Your task to perform on an android device: see sites visited before in the chrome app Image 0: 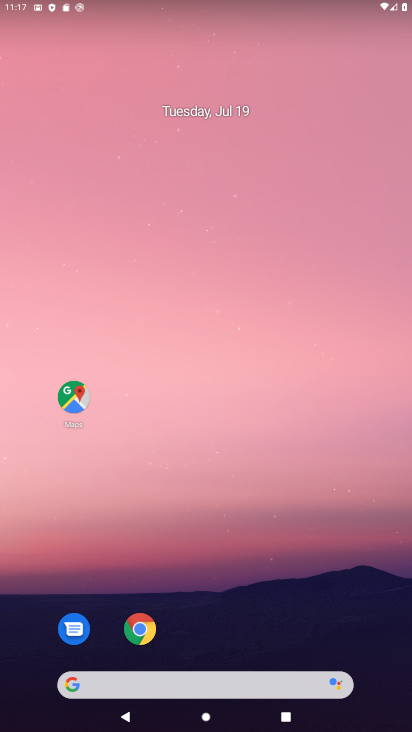
Step 0: drag from (239, 654) to (139, 29)
Your task to perform on an android device: see sites visited before in the chrome app Image 1: 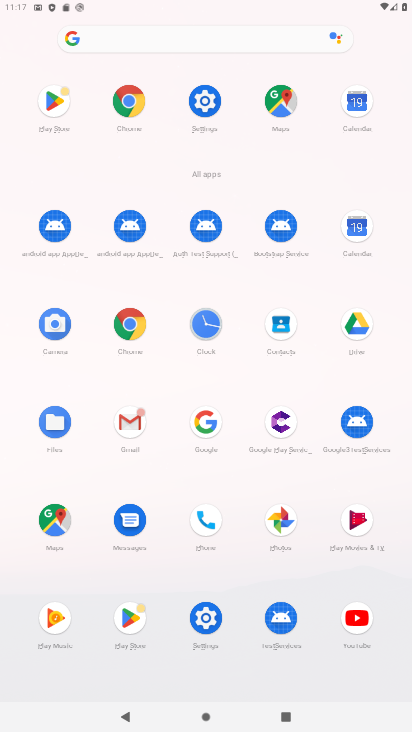
Step 1: click (143, 101)
Your task to perform on an android device: see sites visited before in the chrome app Image 2: 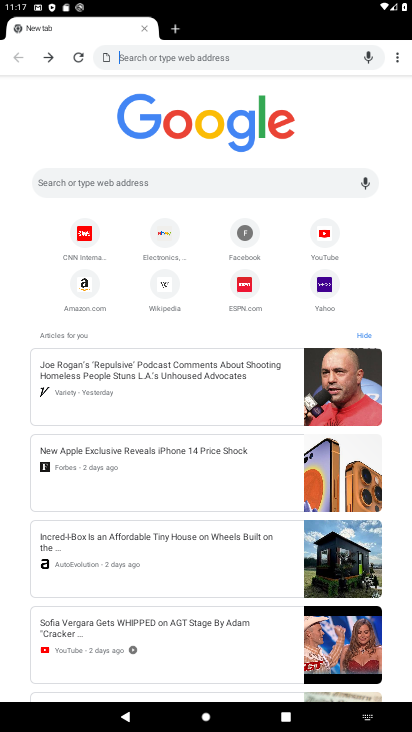
Step 2: drag from (398, 56) to (282, 143)
Your task to perform on an android device: see sites visited before in the chrome app Image 3: 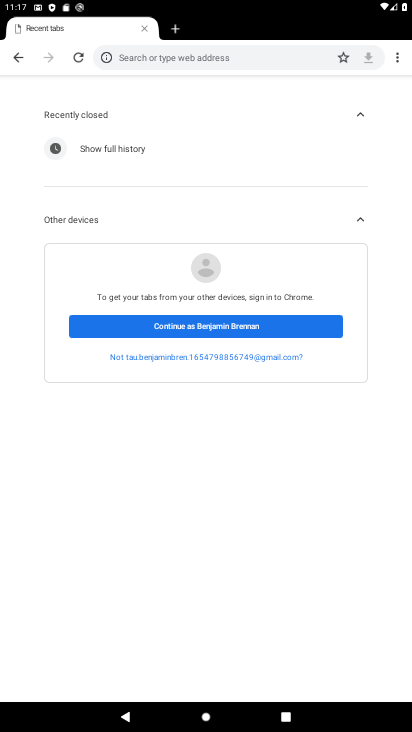
Step 3: click (155, 324)
Your task to perform on an android device: see sites visited before in the chrome app Image 4: 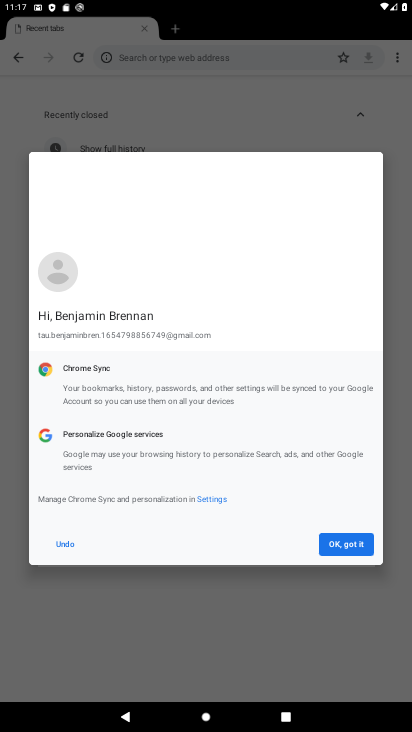
Step 4: click (364, 547)
Your task to perform on an android device: see sites visited before in the chrome app Image 5: 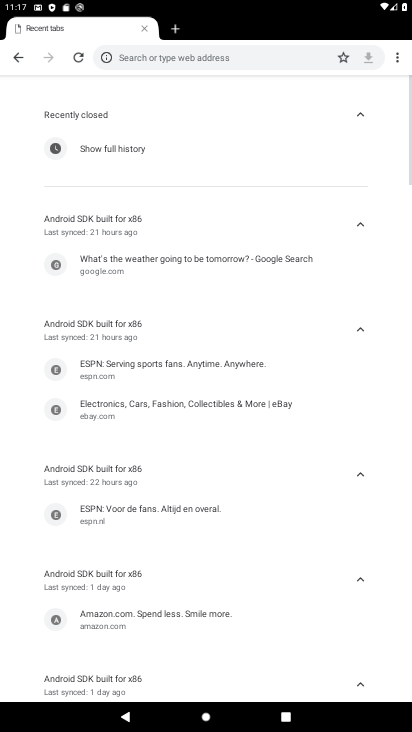
Step 5: task complete